Your task to perform on an android device: toggle notification dots Image 0: 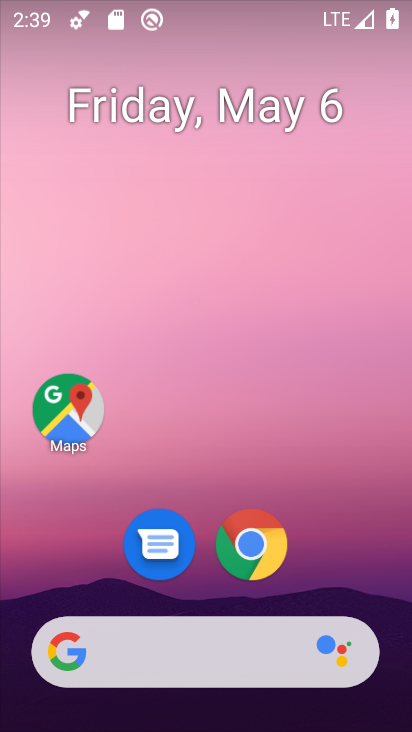
Step 0: drag from (386, 608) to (353, 188)
Your task to perform on an android device: toggle notification dots Image 1: 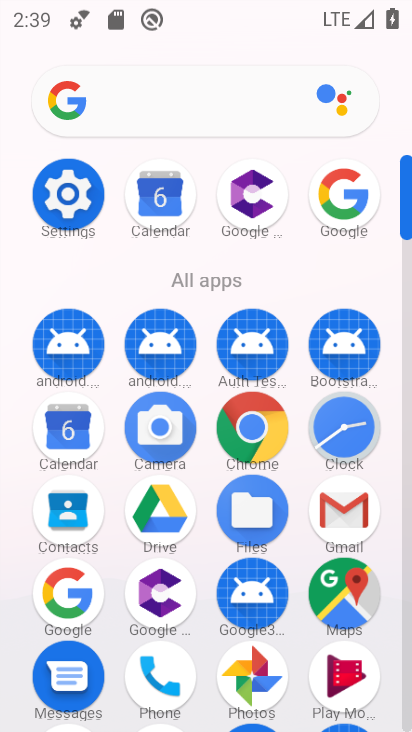
Step 1: click (70, 196)
Your task to perform on an android device: toggle notification dots Image 2: 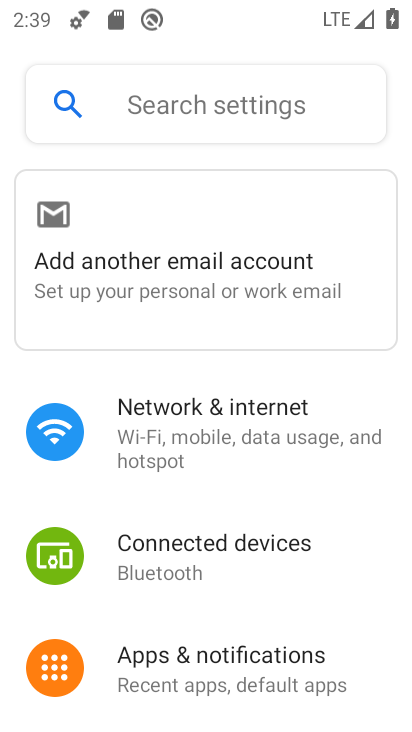
Step 2: click (231, 671)
Your task to perform on an android device: toggle notification dots Image 3: 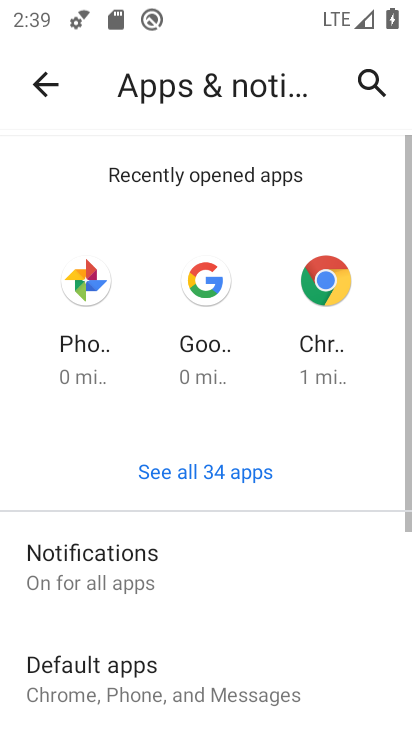
Step 3: click (85, 564)
Your task to perform on an android device: toggle notification dots Image 4: 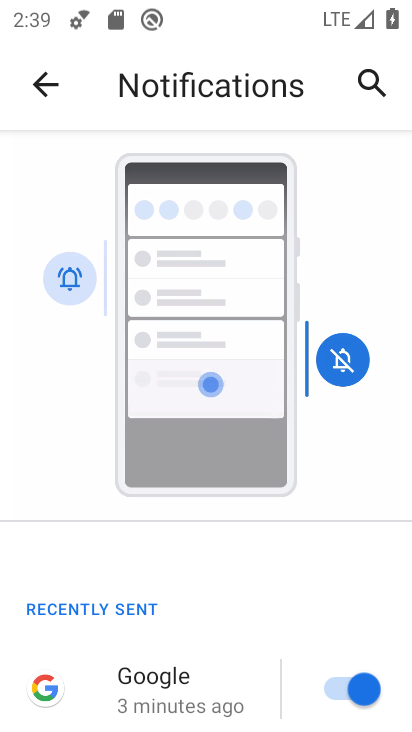
Step 4: drag from (280, 584) to (248, 247)
Your task to perform on an android device: toggle notification dots Image 5: 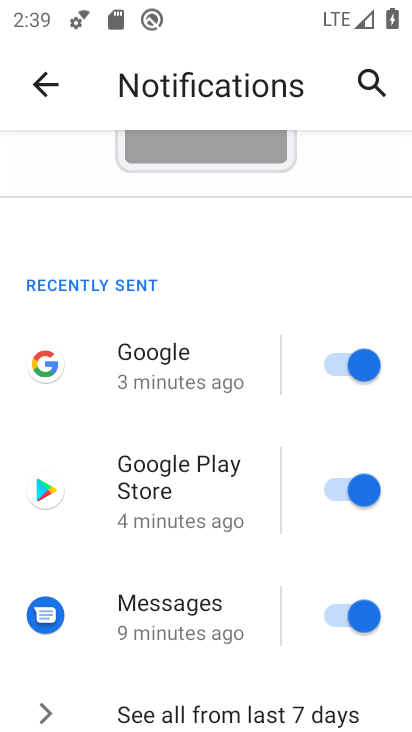
Step 5: drag from (280, 669) to (273, 302)
Your task to perform on an android device: toggle notification dots Image 6: 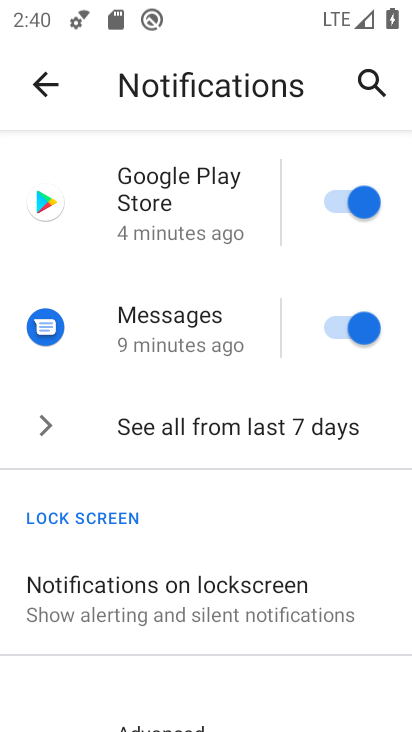
Step 6: drag from (239, 643) to (241, 380)
Your task to perform on an android device: toggle notification dots Image 7: 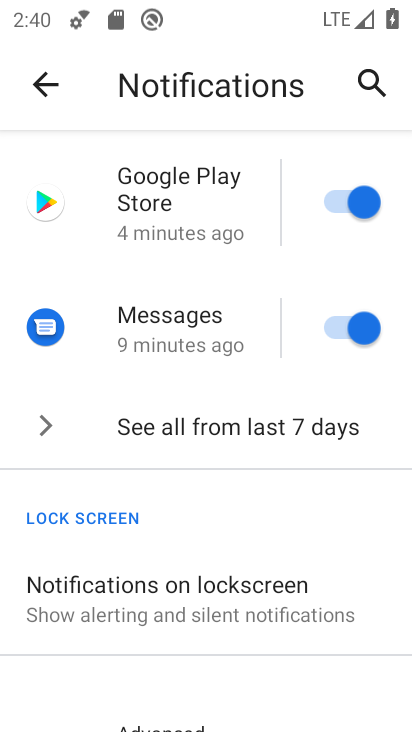
Step 7: drag from (259, 688) to (255, 421)
Your task to perform on an android device: toggle notification dots Image 8: 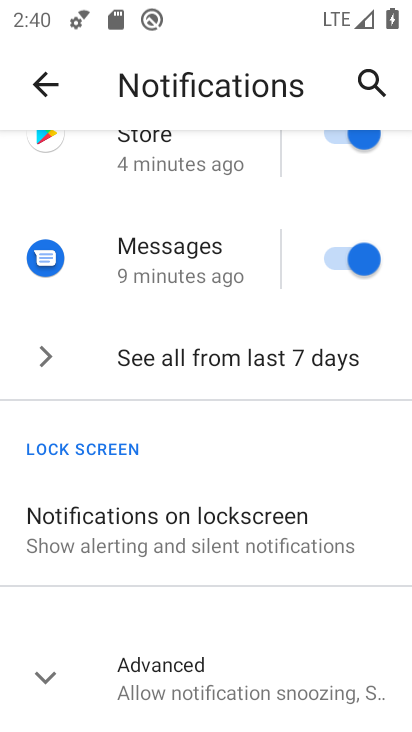
Step 8: drag from (269, 684) to (272, 412)
Your task to perform on an android device: toggle notification dots Image 9: 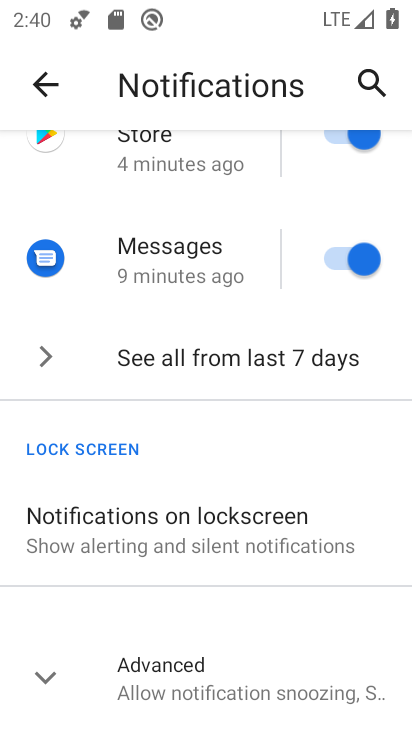
Step 9: click (42, 681)
Your task to perform on an android device: toggle notification dots Image 10: 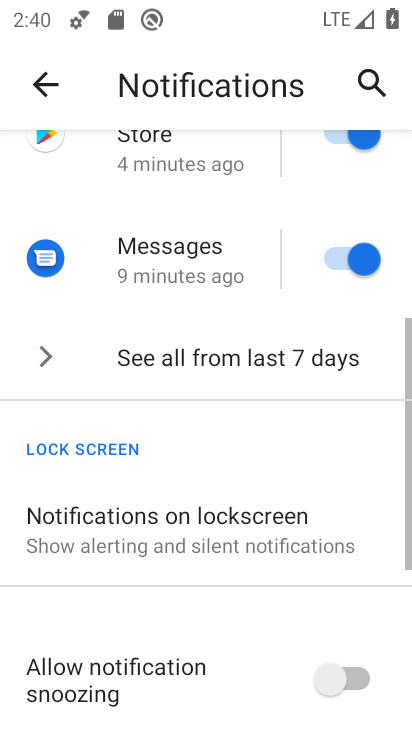
Step 10: drag from (243, 650) to (266, 419)
Your task to perform on an android device: toggle notification dots Image 11: 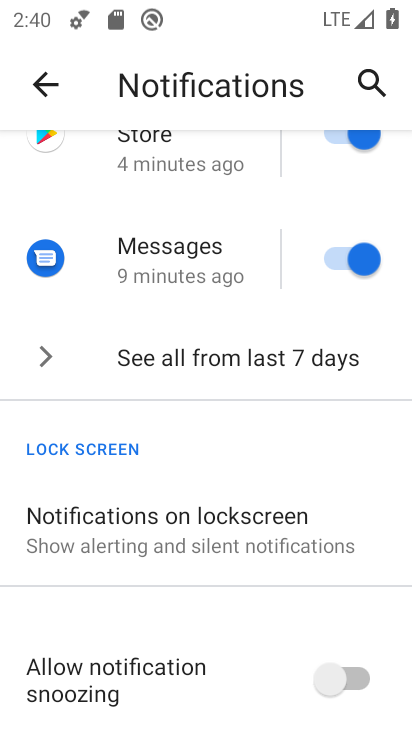
Step 11: drag from (252, 699) to (242, 347)
Your task to perform on an android device: toggle notification dots Image 12: 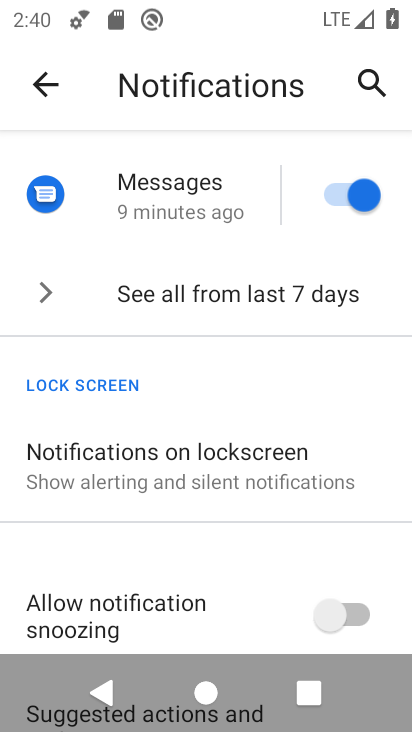
Step 12: drag from (281, 581) to (264, 293)
Your task to perform on an android device: toggle notification dots Image 13: 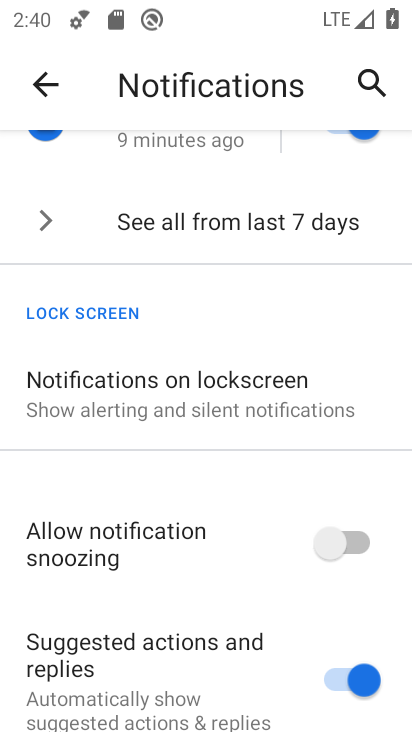
Step 13: drag from (242, 629) to (248, 272)
Your task to perform on an android device: toggle notification dots Image 14: 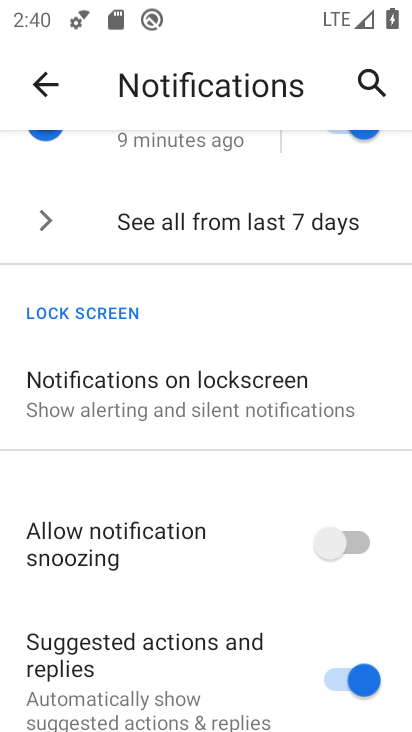
Step 14: drag from (273, 697) to (288, 304)
Your task to perform on an android device: toggle notification dots Image 15: 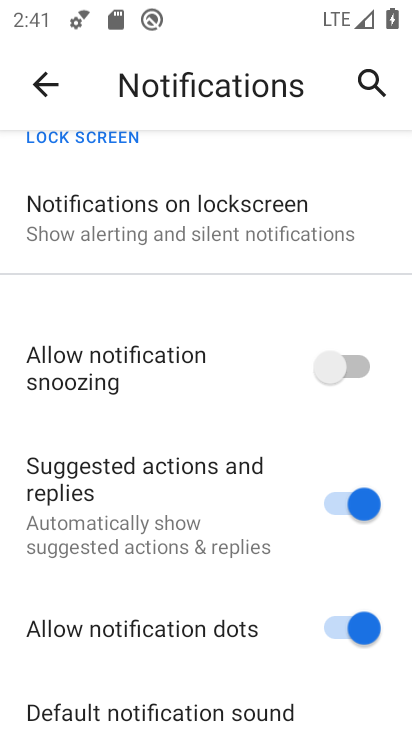
Step 15: drag from (266, 670) to (249, 359)
Your task to perform on an android device: toggle notification dots Image 16: 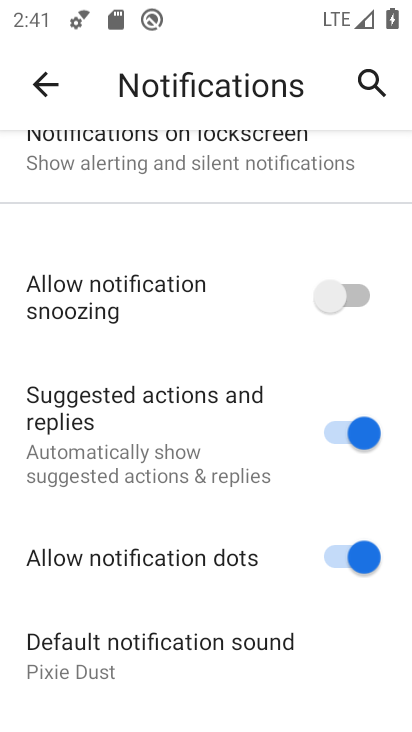
Step 16: drag from (227, 645) to (235, 386)
Your task to perform on an android device: toggle notification dots Image 17: 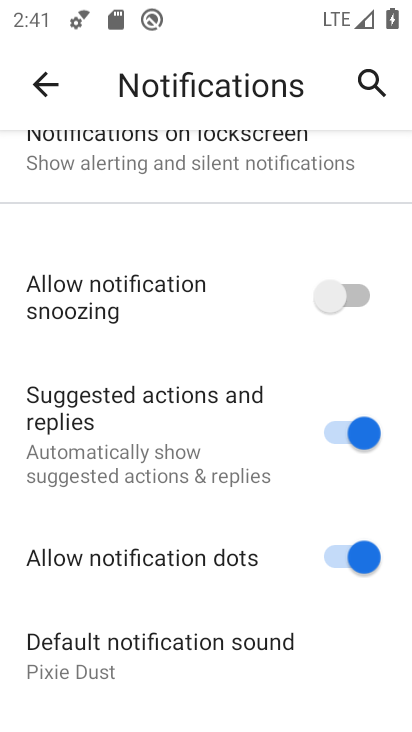
Step 17: drag from (230, 284) to (234, 659)
Your task to perform on an android device: toggle notification dots Image 18: 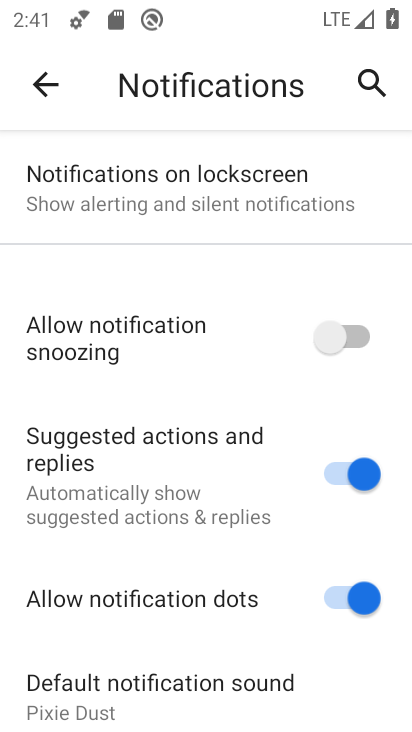
Step 18: drag from (189, 664) to (186, 341)
Your task to perform on an android device: toggle notification dots Image 19: 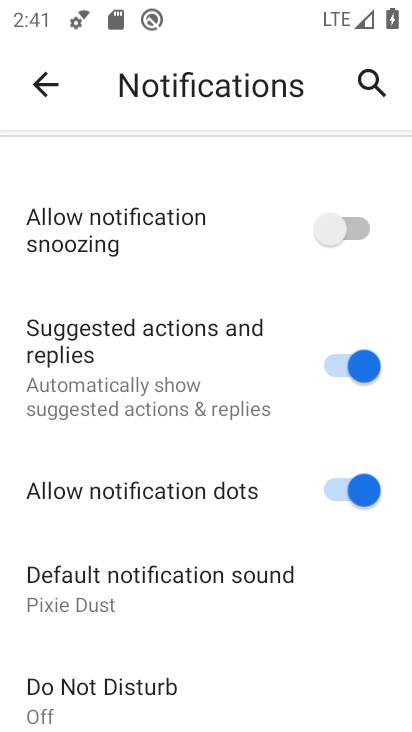
Step 19: click (331, 487)
Your task to perform on an android device: toggle notification dots Image 20: 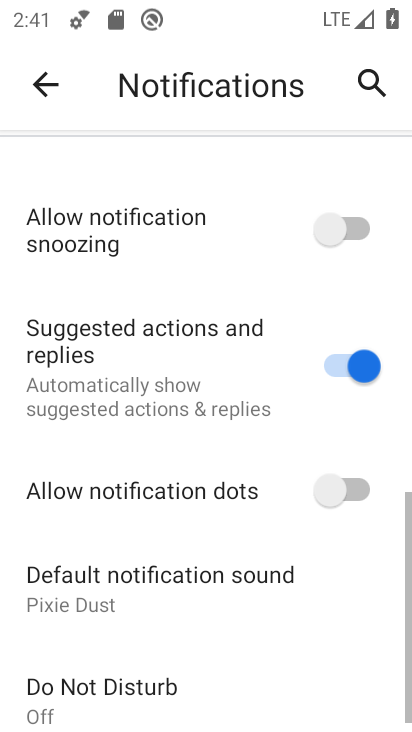
Step 20: task complete